Your task to perform on an android device: set an alarm Image 0: 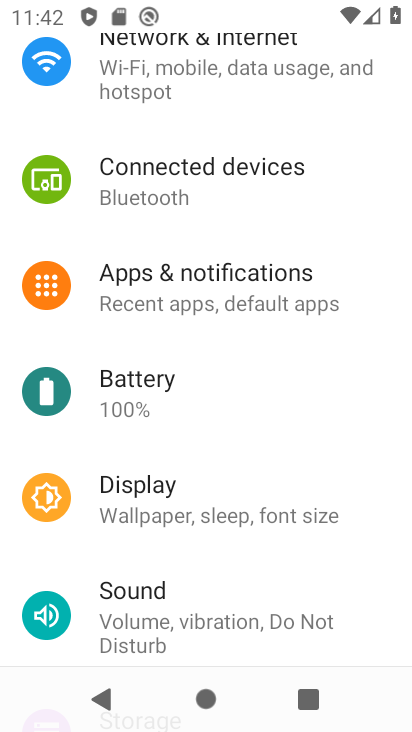
Step 0: press home button
Your task to perform on an android device: set an alarm Image 1: 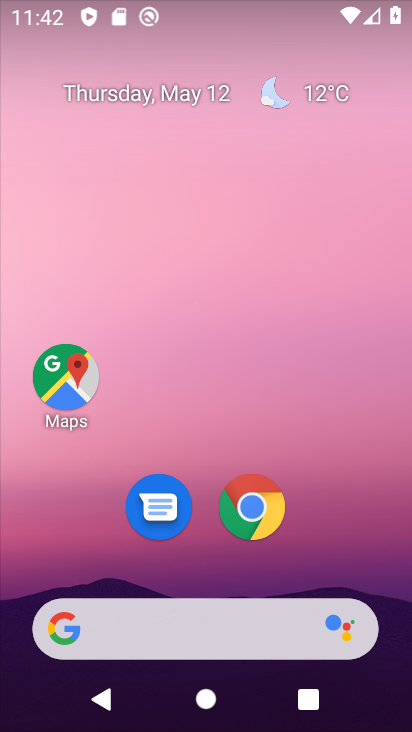
Step 1: drag from (312, 479) to (310, 105)
Your task to perform on an android device: set an alarm Image 2: 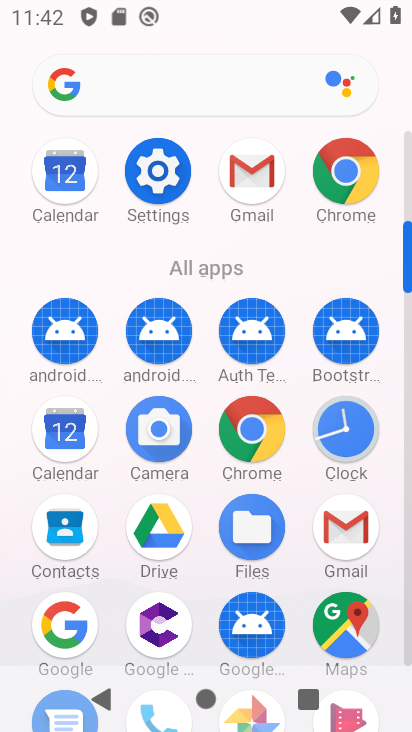
Step 2: click (335, 444)
Your task to perform on an android device: set an alarm Image 3: 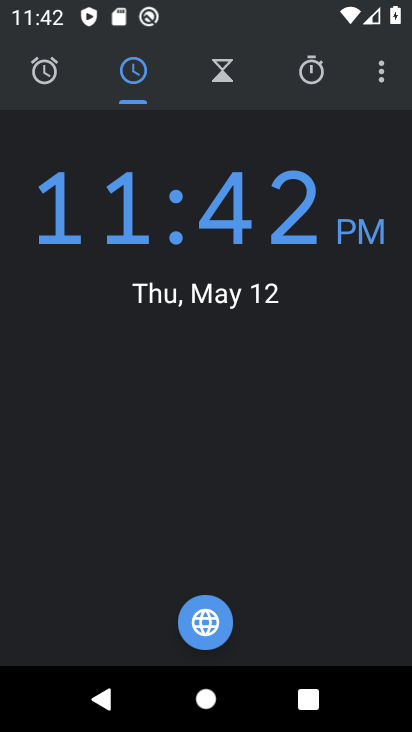
Step 3: click (40, 68)
Your task to perform on an android device: set an alarm Image 4: 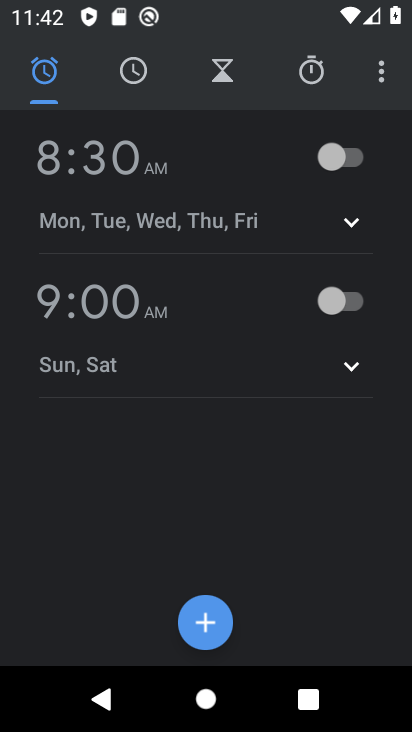
Step 4: task complete